Your task to perform on an android device: Search for Italian restaurants on Maps Image 0: 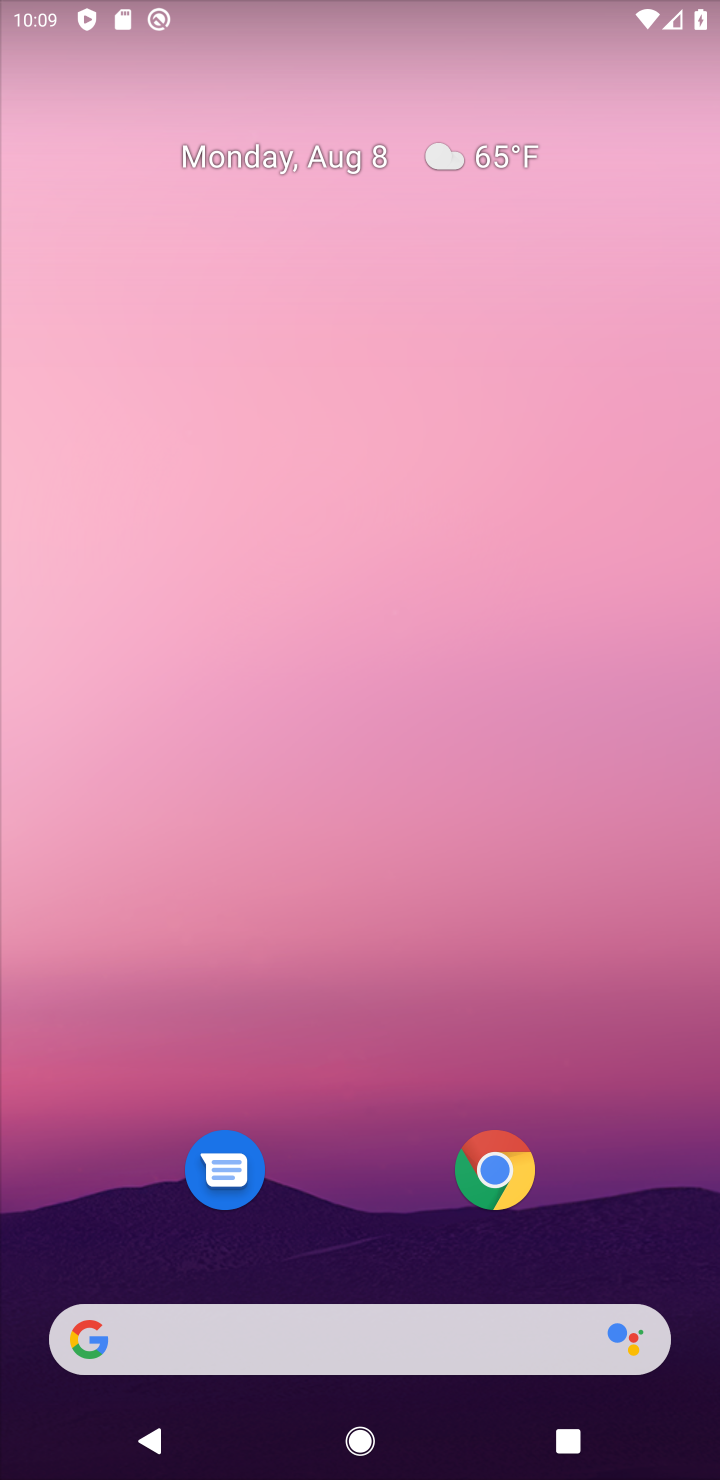
Step 0: press home button
Your task to perform on an android device: Search for Italian restaurants on Maps Image 1: 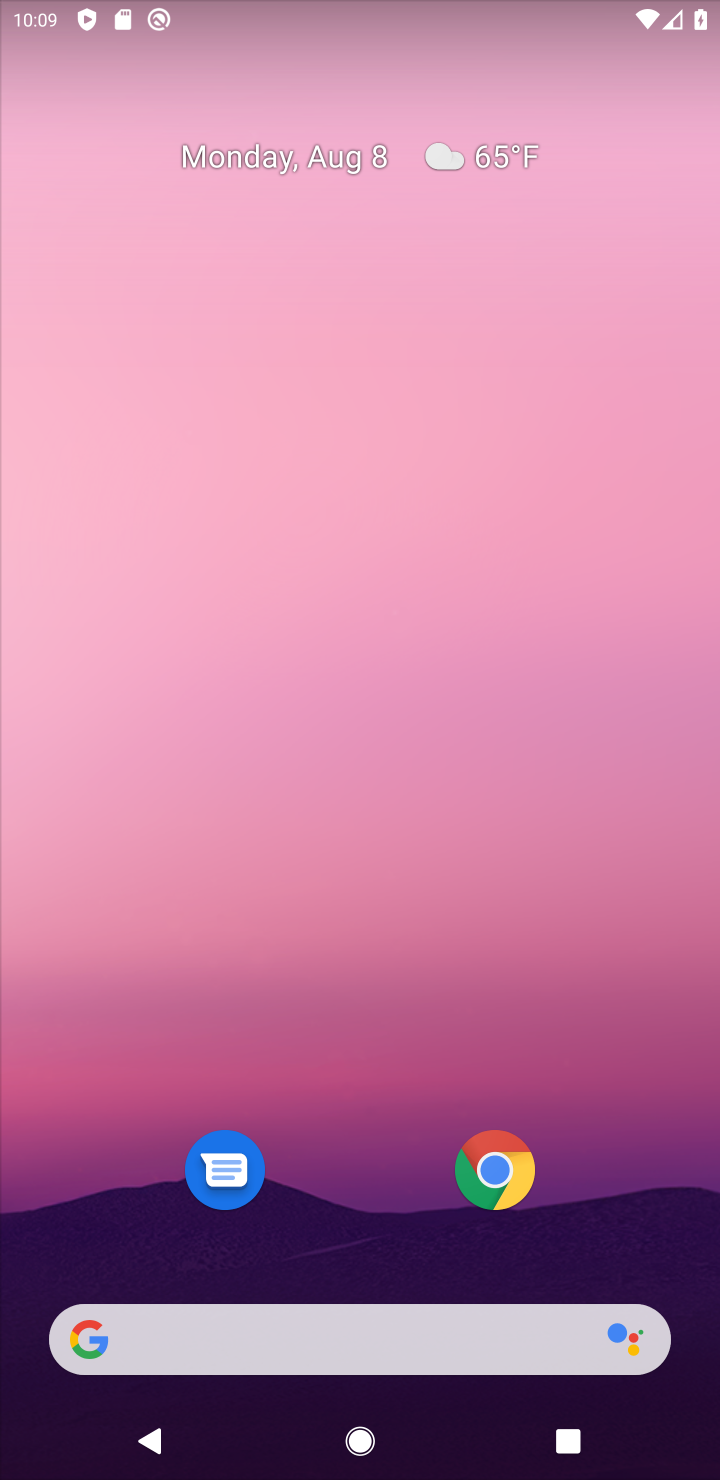
Step 1: drag from (339, 1253) to (587, 75)
Your task to perform on an android device: Search for Italian restaurants on Maps Image 2: 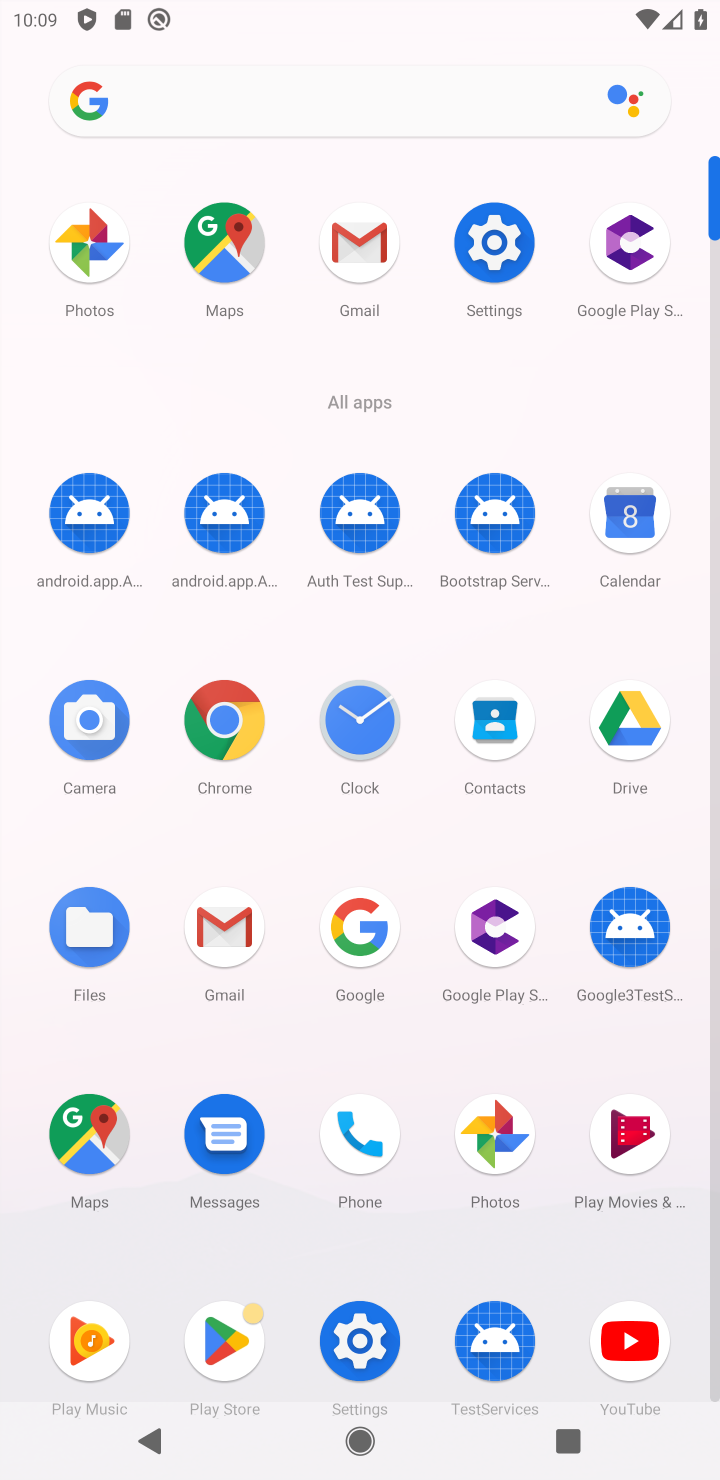
Step 2: click (85, 1137)
Your task to perform on an android device: Search for Italian restaurants on Maps Image 3: 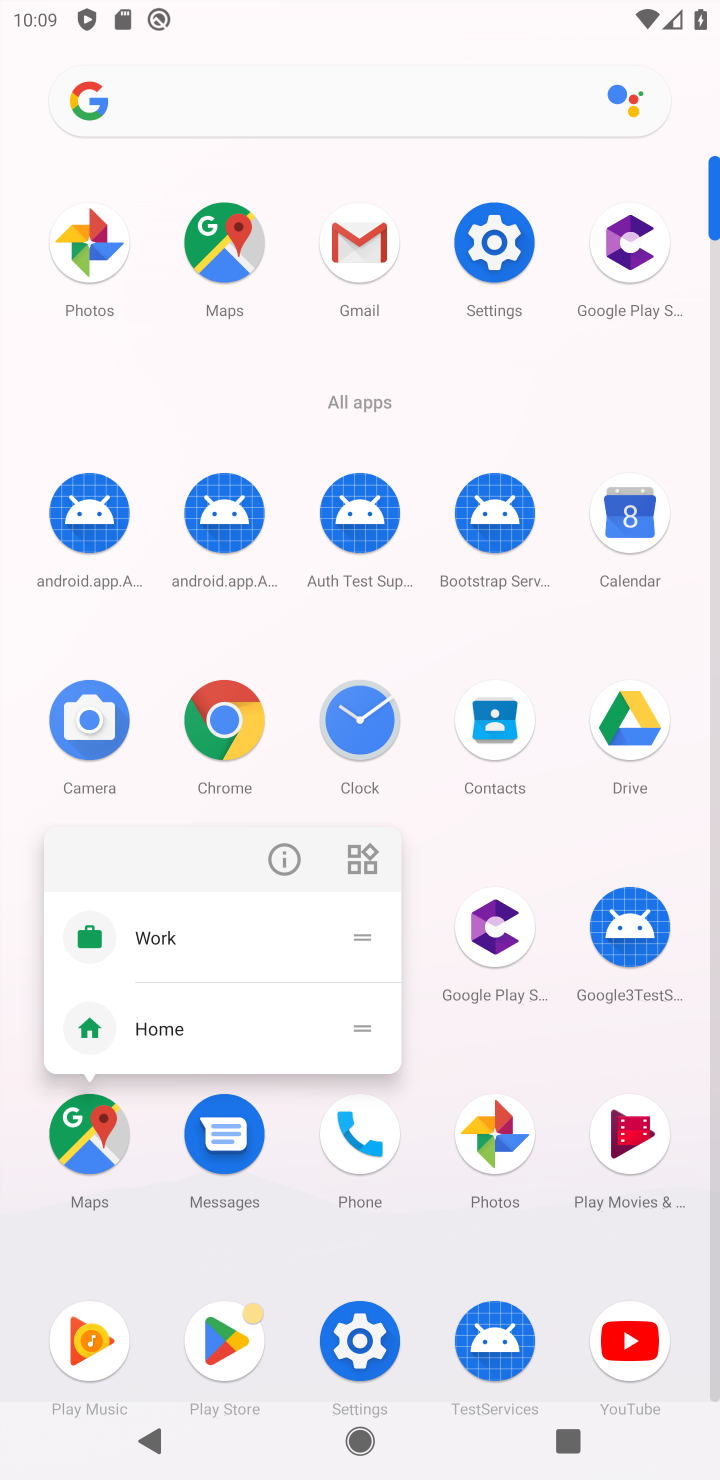
Step 3: click (83, 1133)
Your task to perform on an android device: Search for Italian restaurants on Maps Image 4: 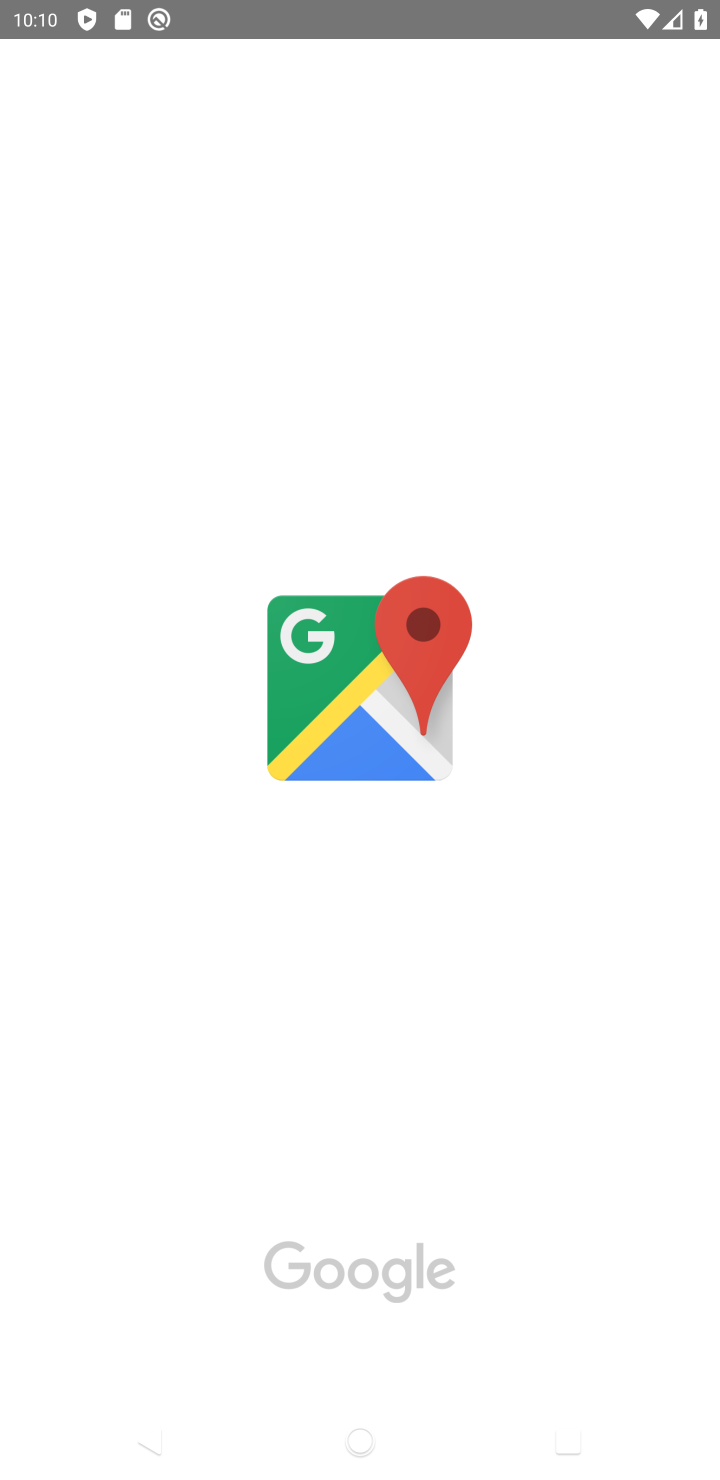
Step 4: task complete